Your task to perform on an android device: turn off location history Image 0: 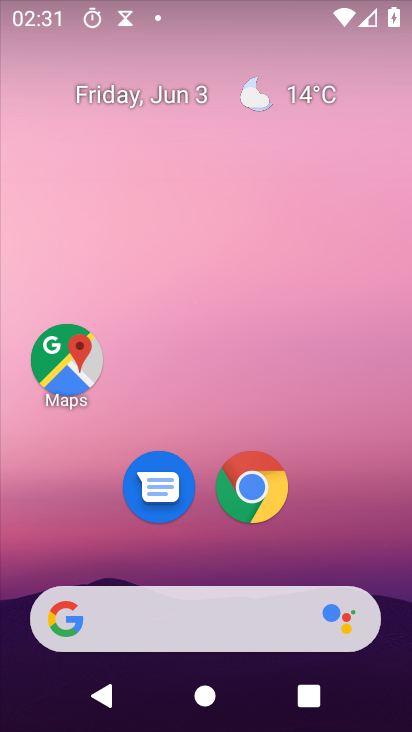
Step 0: drag from (319, 264) to (264, 61)
Your task to perform on an android device: turn off location history Image 1: 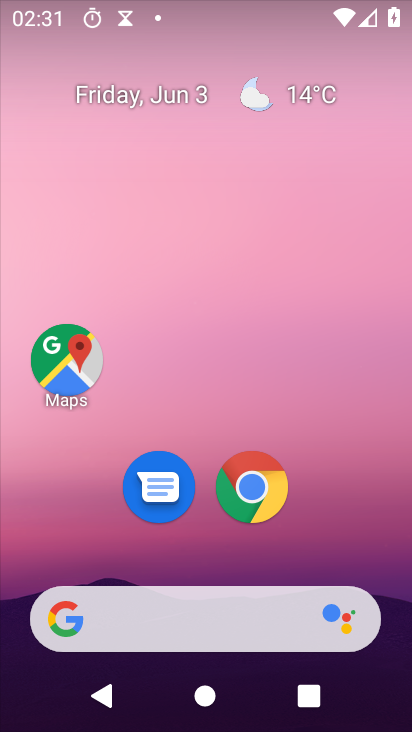
Step 1: drag from (245, 133) to (123, 22)
Your task to perform on an android device: turn off location history Image 2: 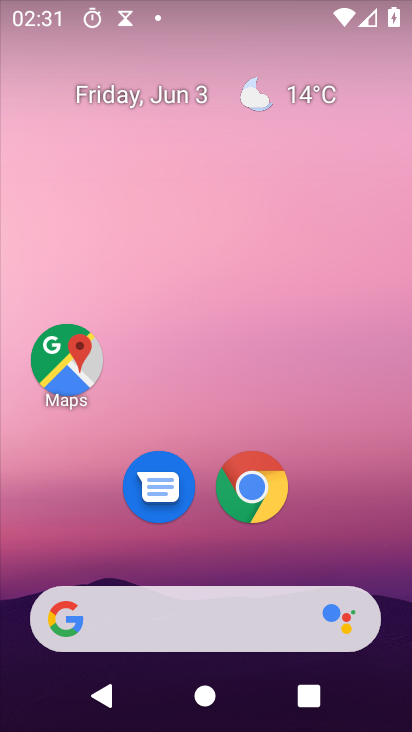
Step 2: drag from (318, 533) to (103, 27)
Your task to perform on an android device: turn off location history Image 3: 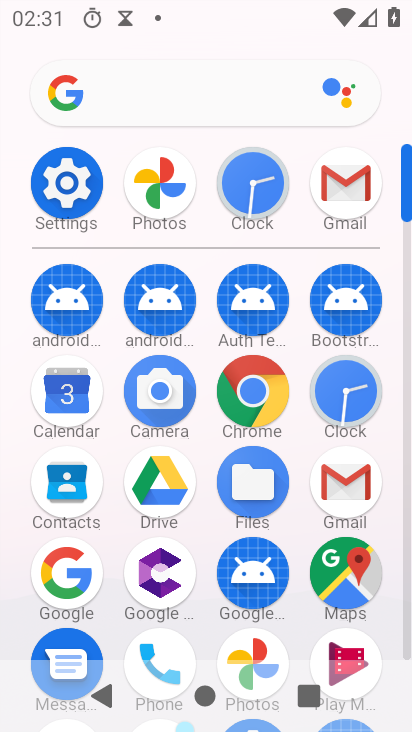
Step 3: click (76, 175)
Your task to perform on an android device: turn off location history Image 4: 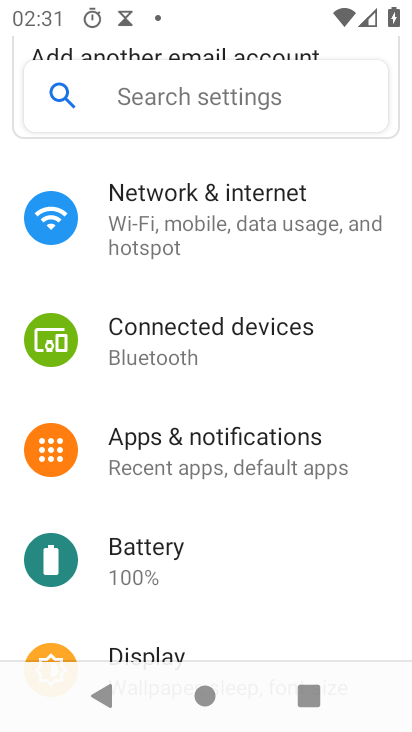
Step 4: drag from (262, 491) to (237, 253)
Your task to perform on an android device: turn off location history Image 5: 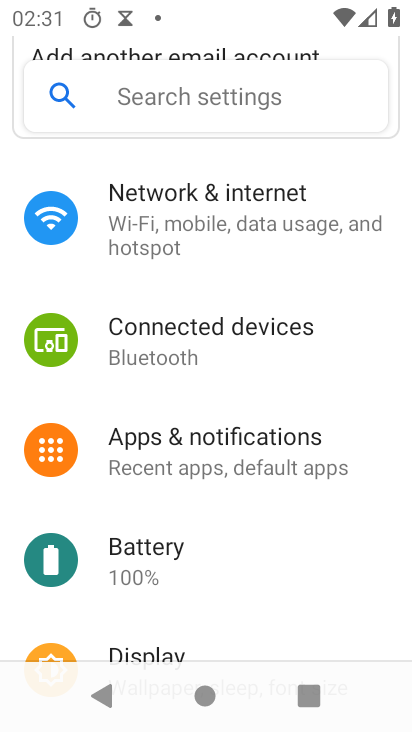
Step 5: drag from (272, 295) to (230, 35)
Your task to perform on an android device: turn off location history Image 6: 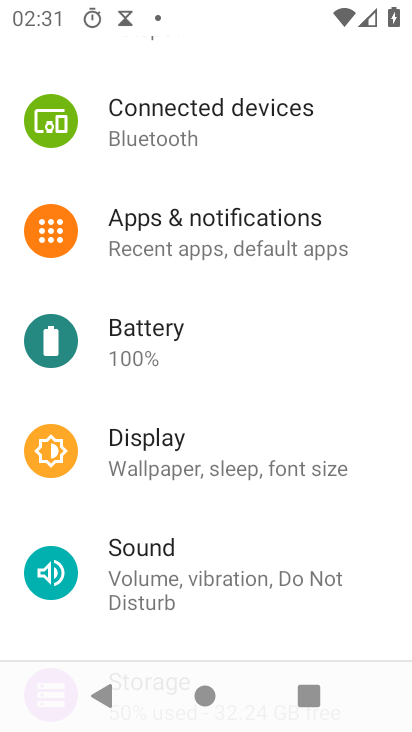
Step 6: drag from (248, 510) to (226, 97)
Your task to perform on an android device: turn off location history Image 7: 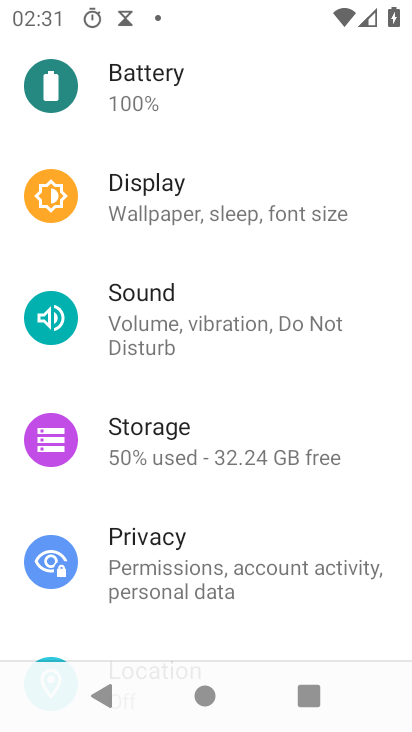
Step 7: drag from (228, 504) to (246, 162)
Your task to perform on an android device: turn off location history Image 8: 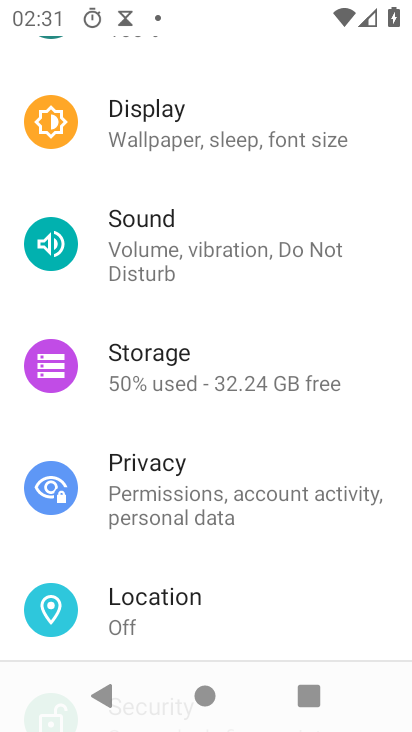
Step 8: click (181, 571)
Your task to perform on an android device: turn off location history Image 9: 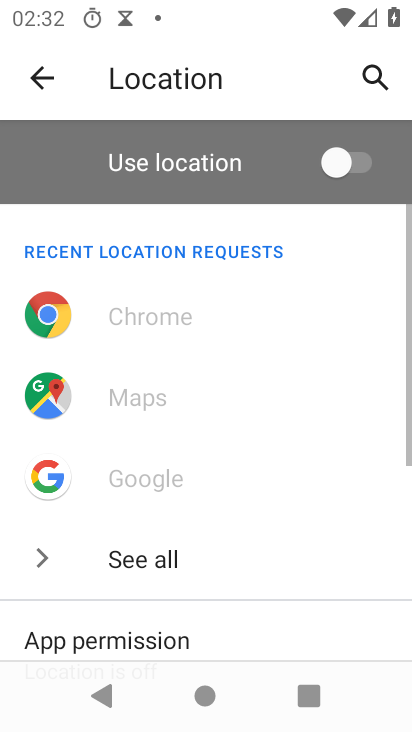
Step 9: drag from (246, 580) to (212, 45)
Your task to perform on an android device: turn off location history Image 10: 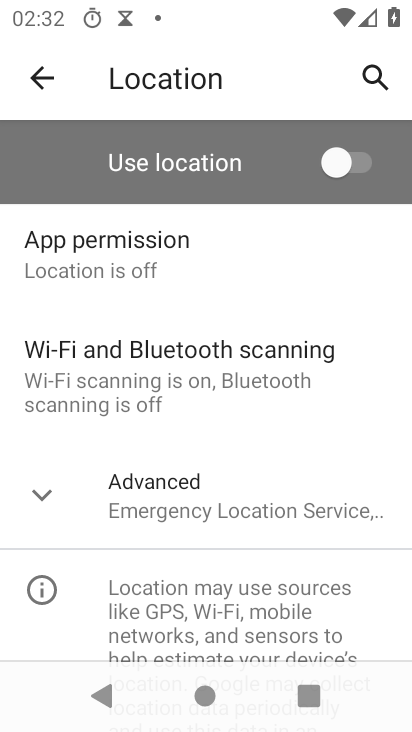
Step 10: click (248, 498)
Your task to perform on an android device: turn off location history Image 11: 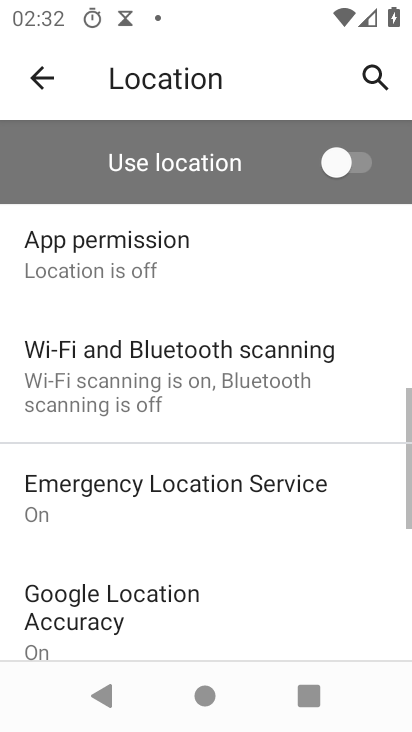
Step 11: drag from (224, 544) to (184, 56)
Your task to perform on an android device: turn off location history Image 12: 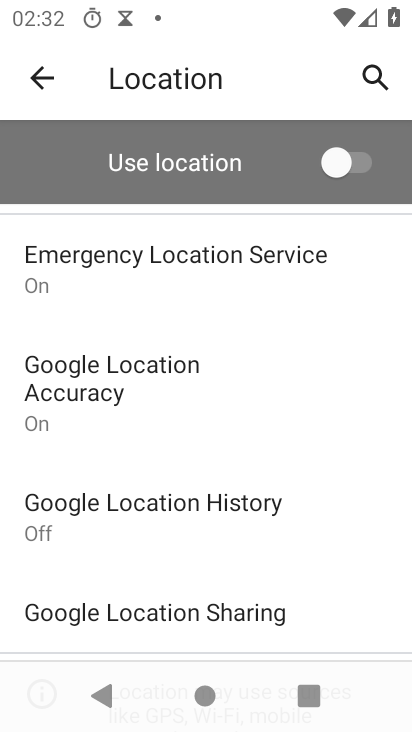
Step 12: click (241, 521)
Your task to perform on an android device: turn off location history Image 13: 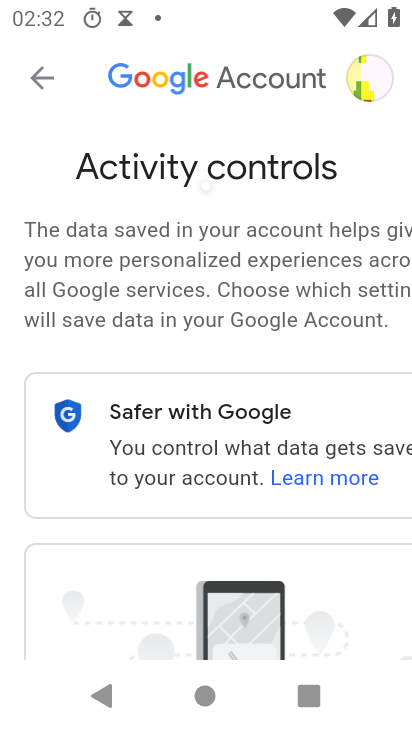
Step 13: task complete